Your task to perform on an android device: empty trash in google photos Image 0: 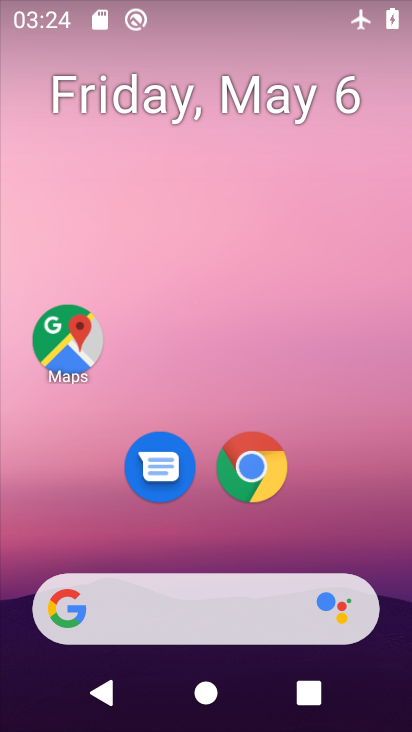
Step 0: drag from (395, 655) to (377, 290)
Your task to perform on an android device: empty trash in google photos Image 1: 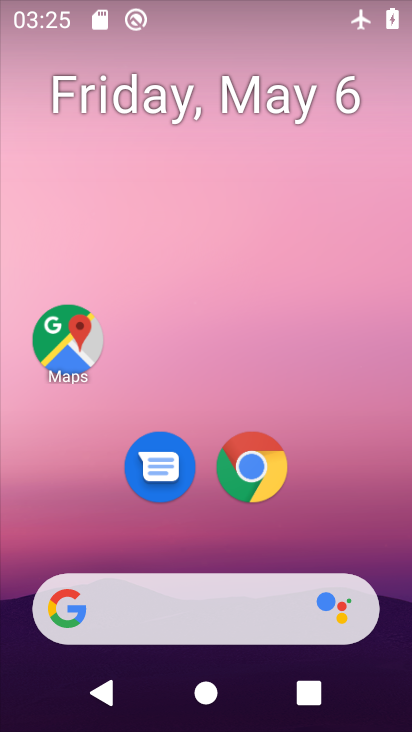
Step 1: drag from (371, 567) to (348, 272)
Your task to perform on an android device: empty trash in google photos Image 2: 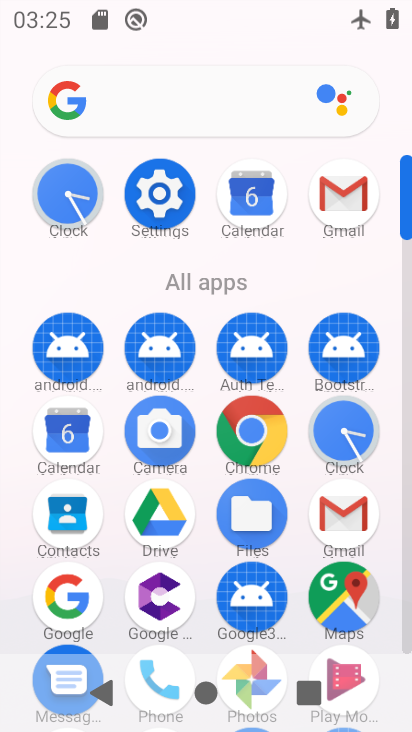
Step 2: drag from (295, 596) to (278, 351)
Your task to perform on an android device: empty trash in google photos Image 3: 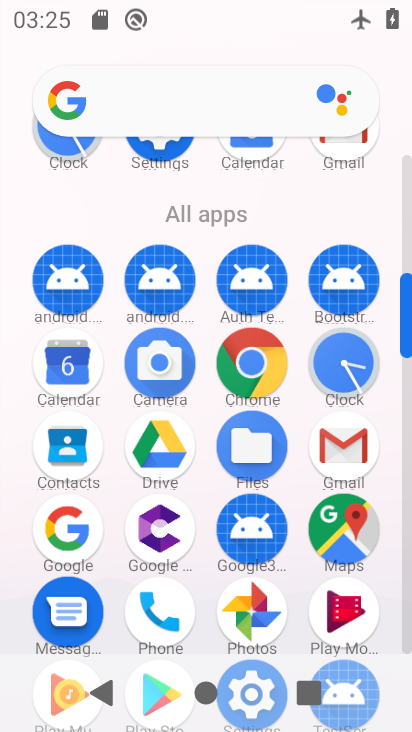
Step 3: click (259, 606)
Your task to perform on an android device: empty trash in google photos Image 4: 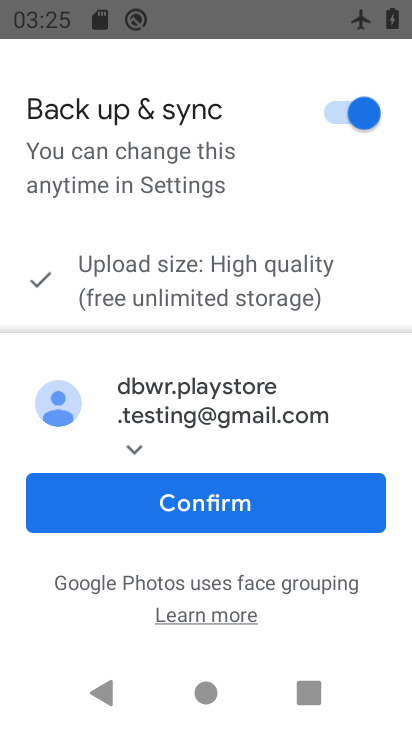
Step 4: click (281, 514)
Your task to perform on an android device: empty trash in google photos Image 5: 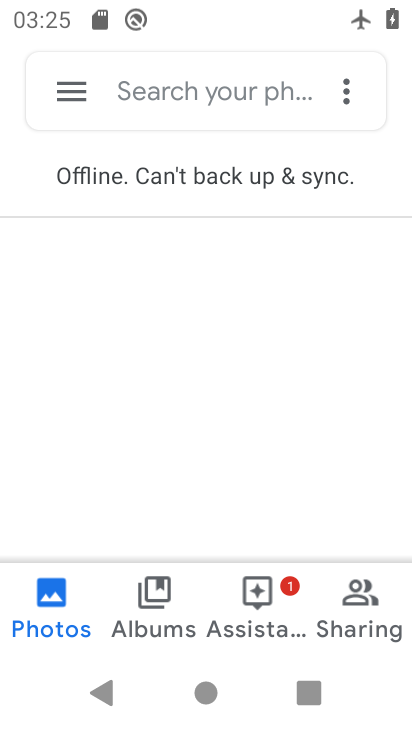
Step 5: click (57, 100)
Your task to perform on an android device: empty trash in google photos Image 6: 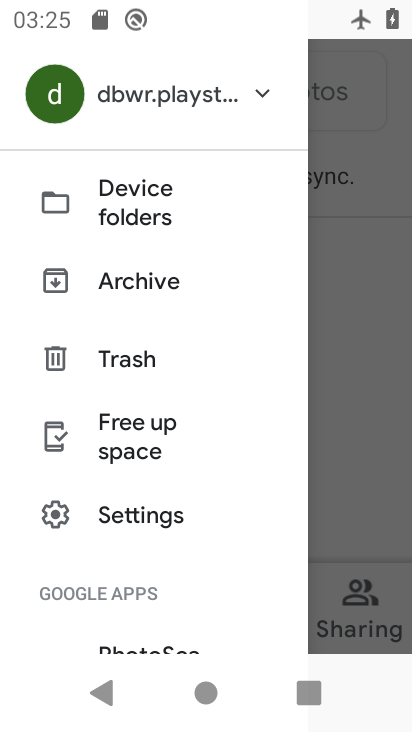
Step 6: click (235, 270)
Your task to perform on an android device: empty trash in google photos Image 7: 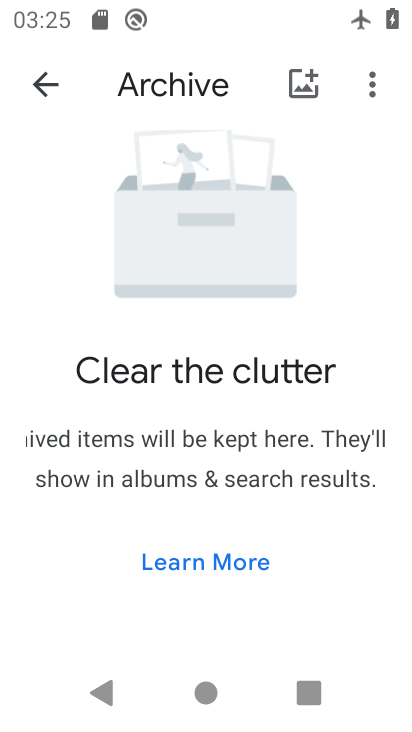
Step 7: click (110, 361)
Your task to perform on an android device: empty trash in google photos Image 8: 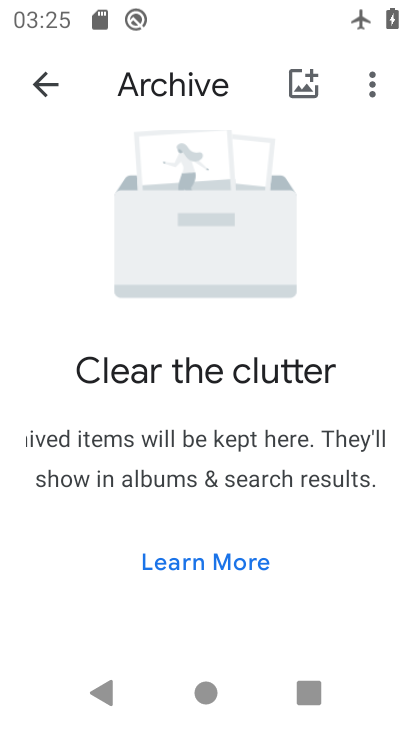
Step 8: click (37, 92)
Your task to perform on an android device: empty trash in google photos Image 9: 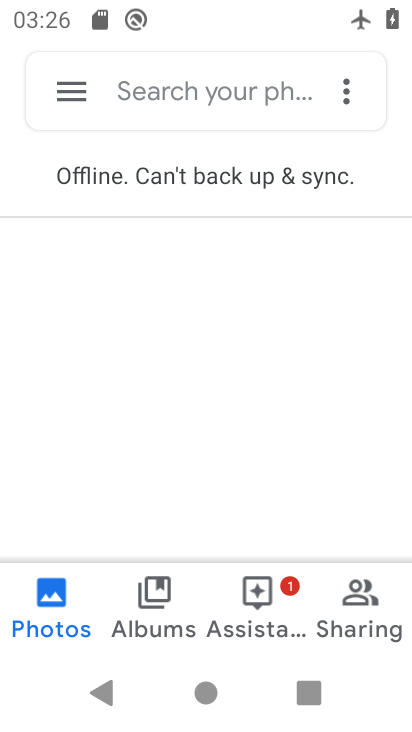
Step 9: click (78, 81)
Your task to perform on an android device: empty trash in google photos Image 10: 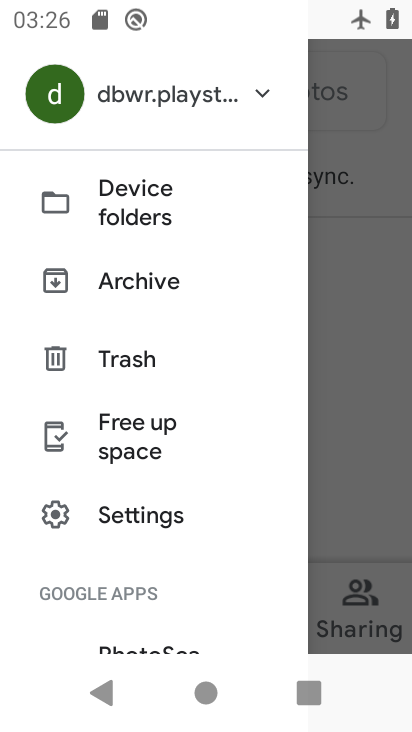
Step 10: click (123, 361)
Your task to perform on an android device: empty trash in google photos Image 11: 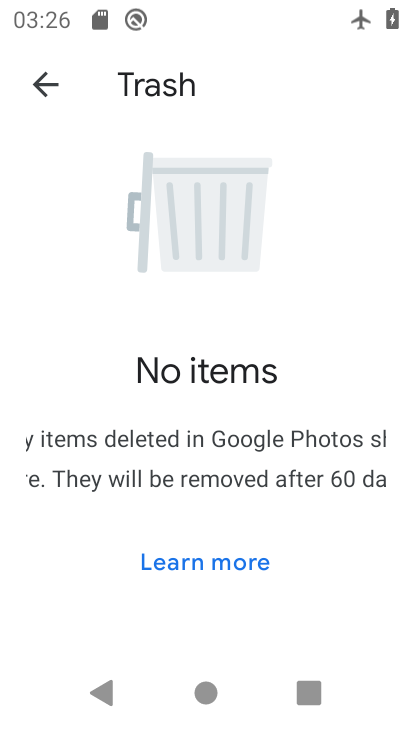
Step 11: task complete